Your task to perform on an android device: What's the weather going to be this weekend? Image 0: 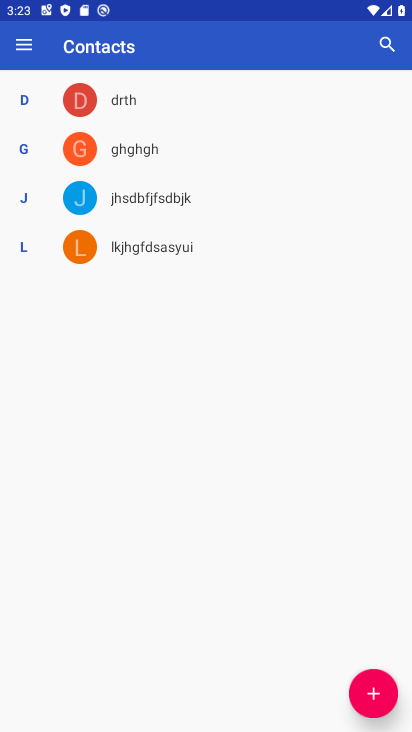
Step 0: press home button
Your task to perform on an android device: What's the weather going to be this weekend? Image 1: 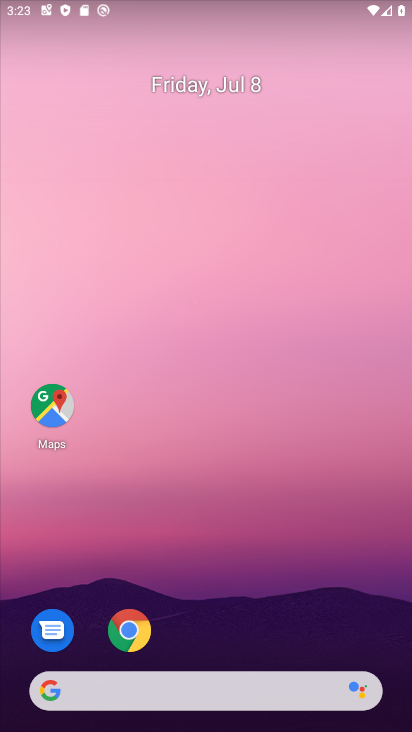
Step 1: drag from (309, 628) to (269, 145)
Your task to perform on an android device: What's the weather going to be this weekend? Image 2: 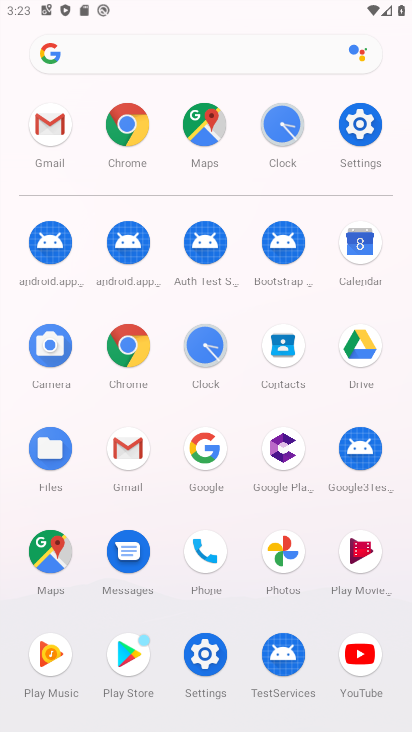
Step 2: click (185, 39)
Your task to perform on an android device: What's the weather going to be this weekend? Image 3: 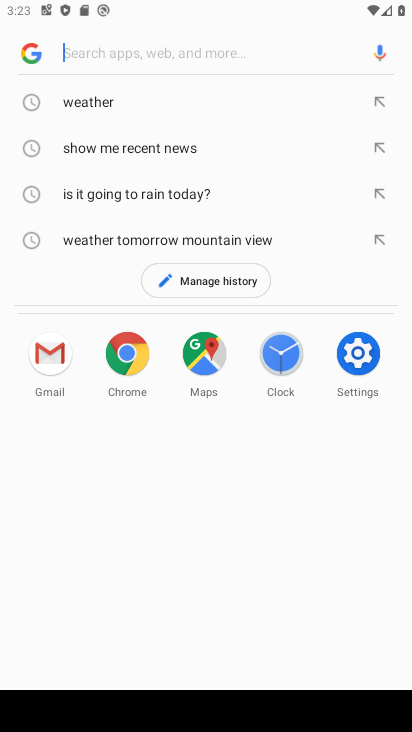
Step 3: click (184, 92)
Your task to perform on an android device: What's the weather going to be this weekend? Image 4: 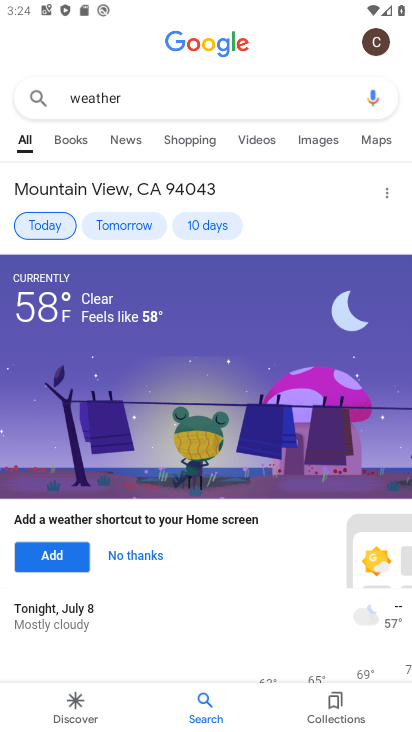
Step 4: click (187, 229)
Your task to perform on an android device: What's the weather going to be this weekend? Image 5: 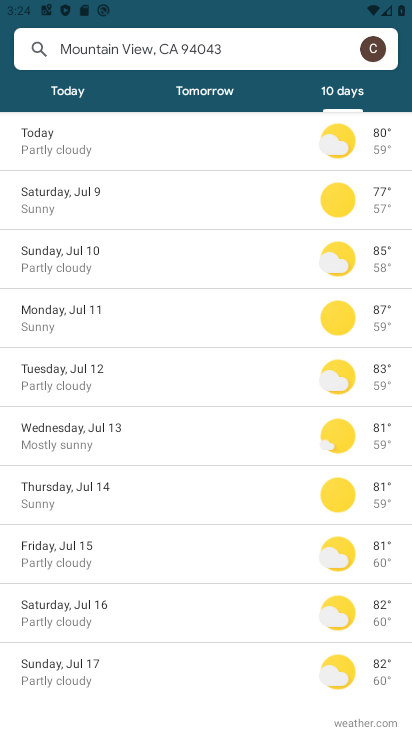
Step 5: task complete